Your task to perform on an android device: Go to privacy settings Image 0: 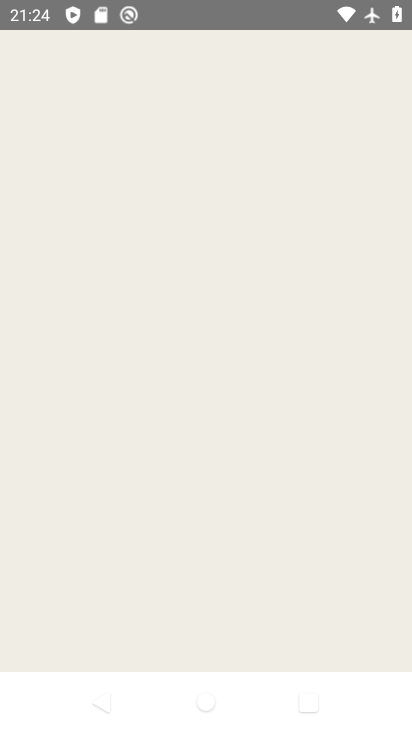
Step 0: press home button
Your task to perform on an android device: Go to privacy settings Image 1: 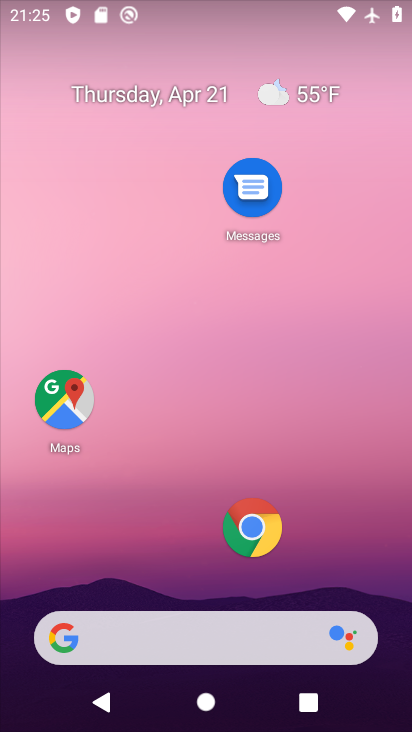
Step 1: drag from (148, 612) to (291, 0)
Your task to perform on an android device: Go to privacy settings Image 2: 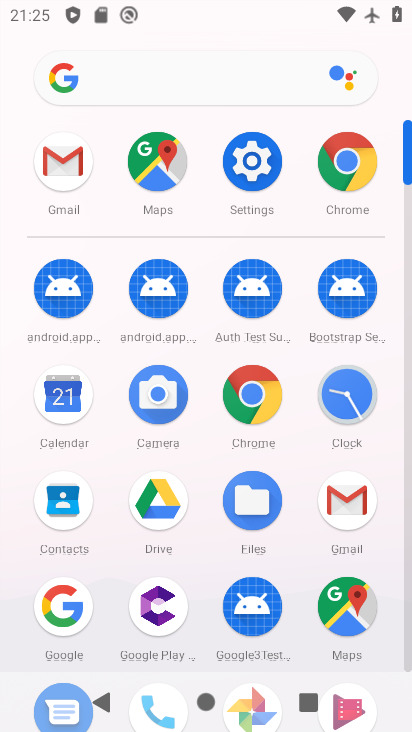
Step 2: click (255, 178)
Your task to perform on an android device: Go to privacy settings Image 3: 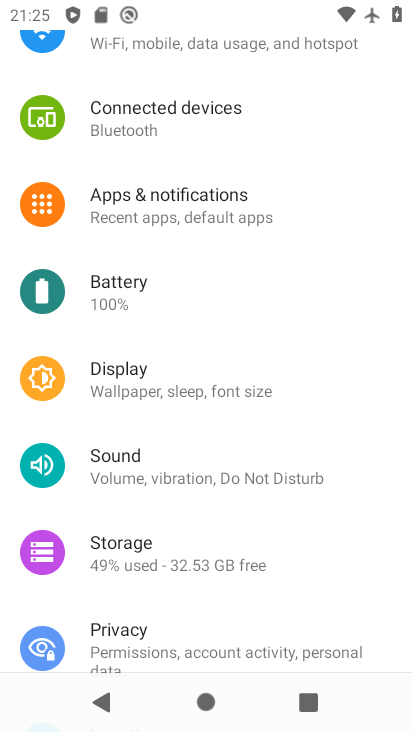
Step 3: click (121, 637)
Your task to perform on an android device: Go to privacy settings Image 4: 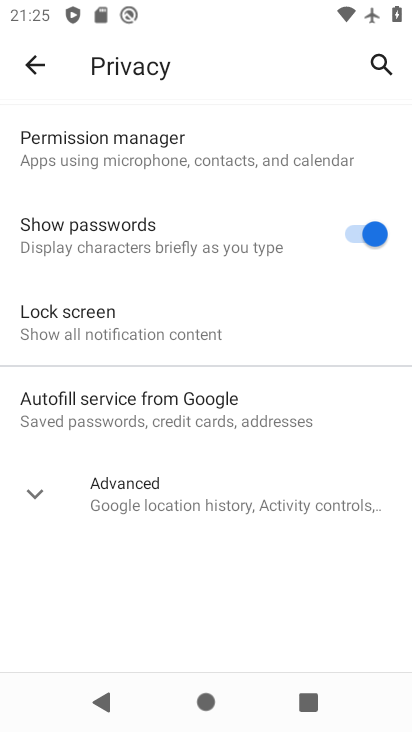
Step 4: task complete